Your task to perform on an android device: Open Youtube and go to "Your channel" Image 0: 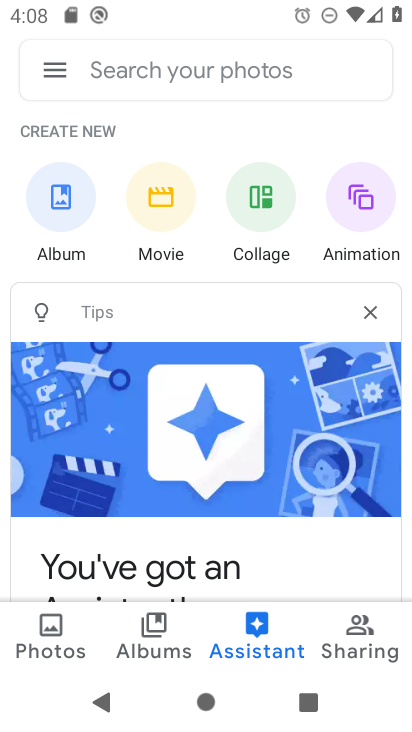
Step 0: press home button
Your task to perform on an android device: Open Youtube and go to "Your channel" Image 1: 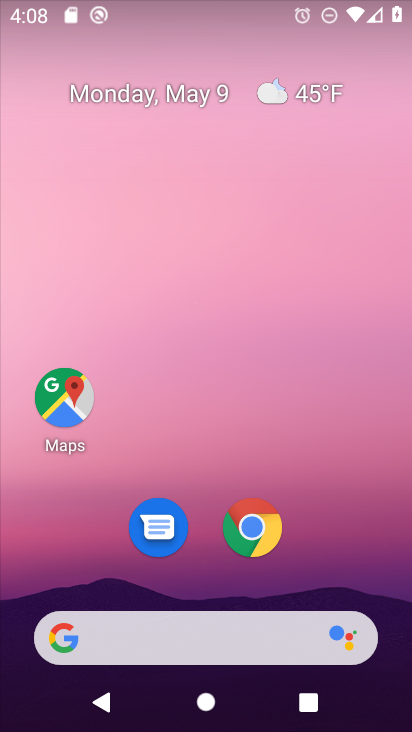
Step 1: drag from (366, 571) to (277, 107)
Your task to perform on an android device: Open Youtube and go to "Your channel" Image 2: 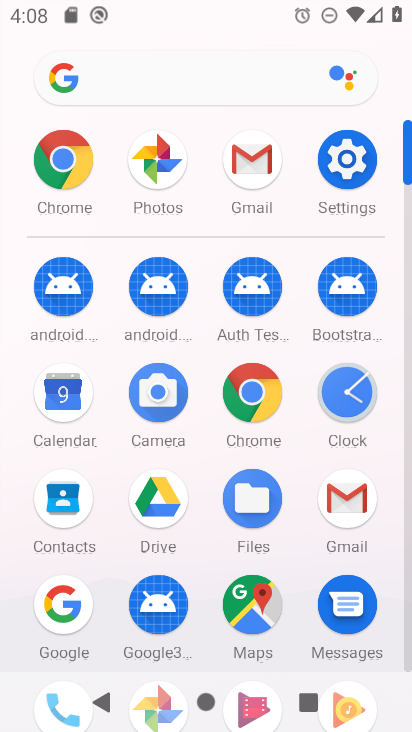
Step 2: click (410, 662)
Your task to perform on an android device: Open Youtube and go to "Your channel" Image 3: 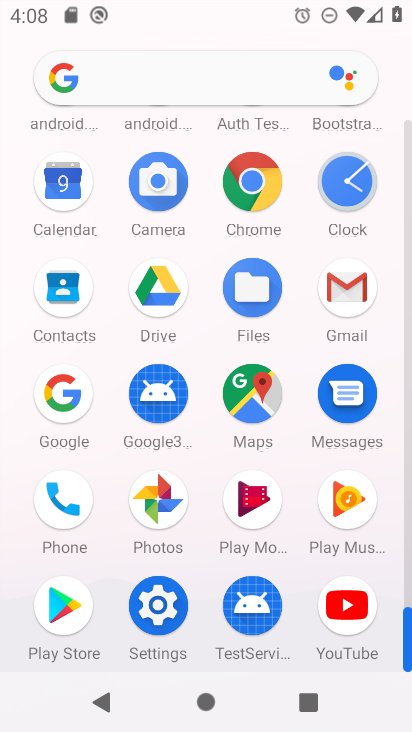
Step 3: click (337, 602)
Your task to perform on an android device: Open Youtube and go to "Your channel" Image 4: 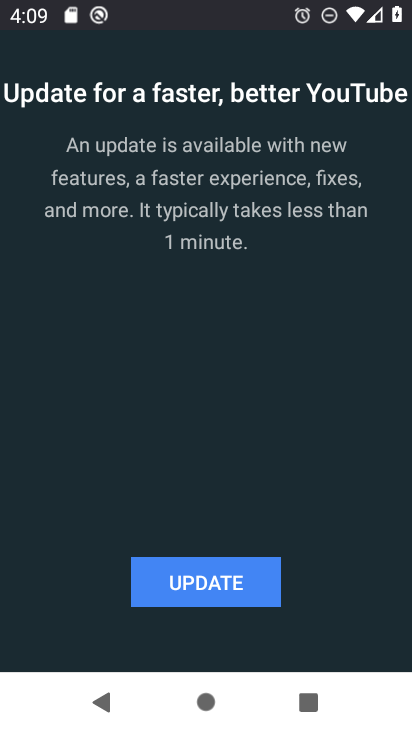
Step 4: click (263, 594)
Your task to perform on an android device: Open Youtube and go to "Your channel" Image 5: 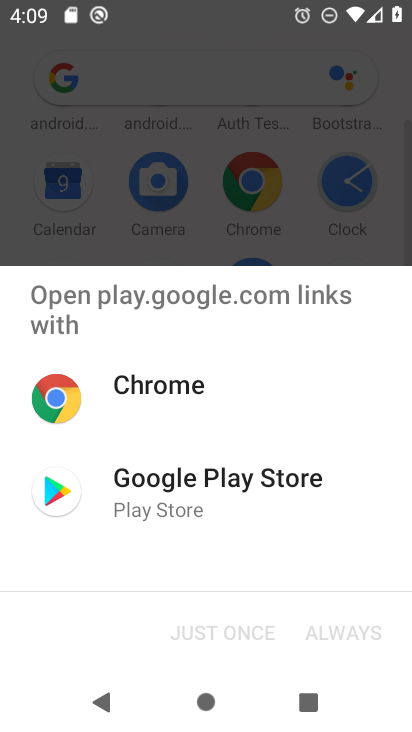
Step 5: click (291, 510)
Your task to perform on an android device: Open Youtube and go to "Your channel" Image 6: 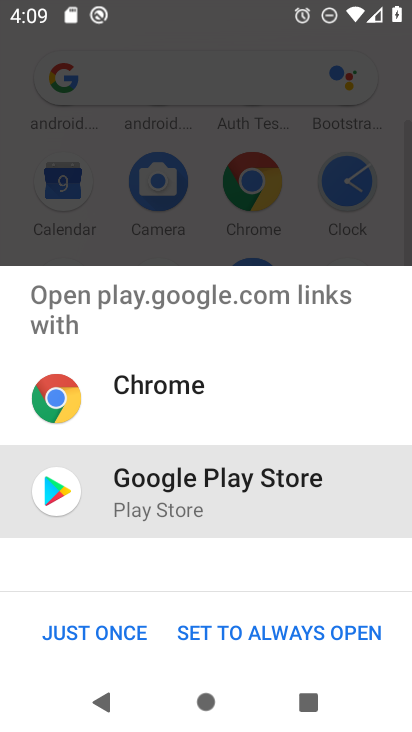
Step 6: click (110, 629)
Your task to perform on an android device: Open Youtube and go to "Your channel" Image 7: 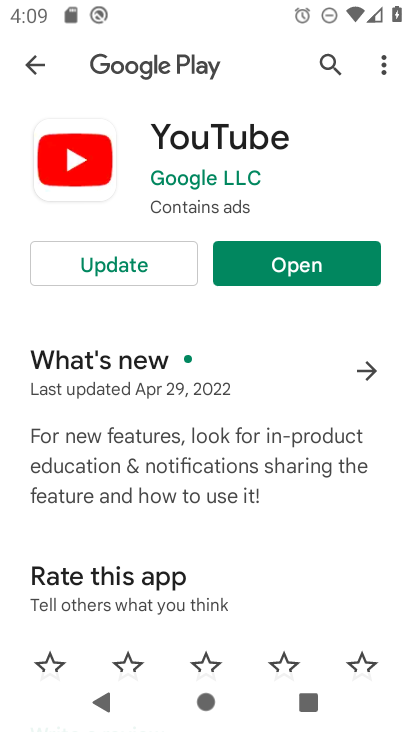
Step 7: click (131, 264)
Your task to perform on an android device: Open Youtube and go to "Your channel" Image 8: 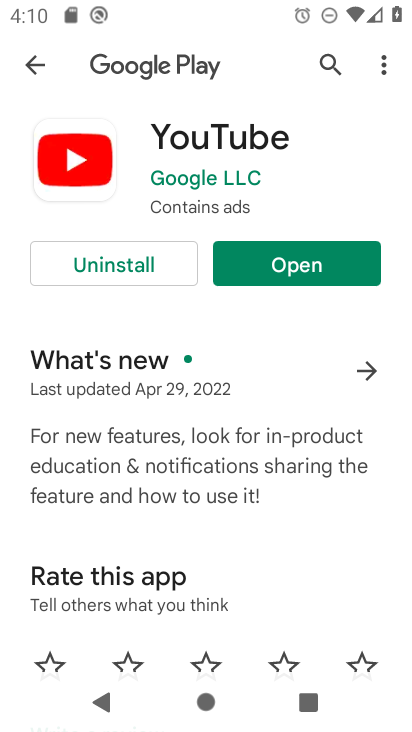
Step 8: click (358, 263)
Your task to perform on an android device: Open Youtube and go to "Your channel" Image 9: 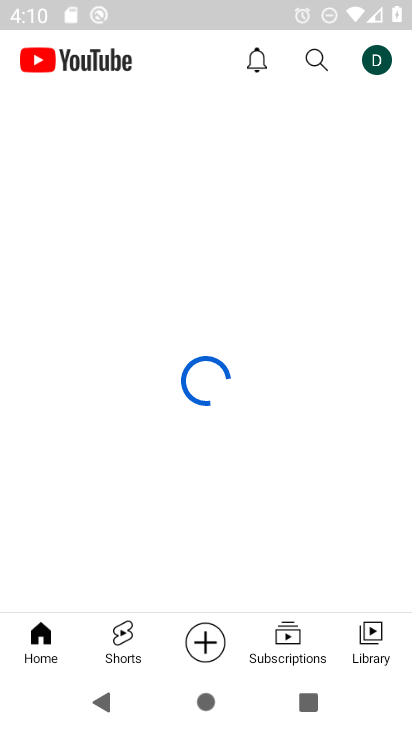
Step 9: click (384, 70)
Your task to perform on an android device: Open Youtube and go to "Your channel" Image 10: 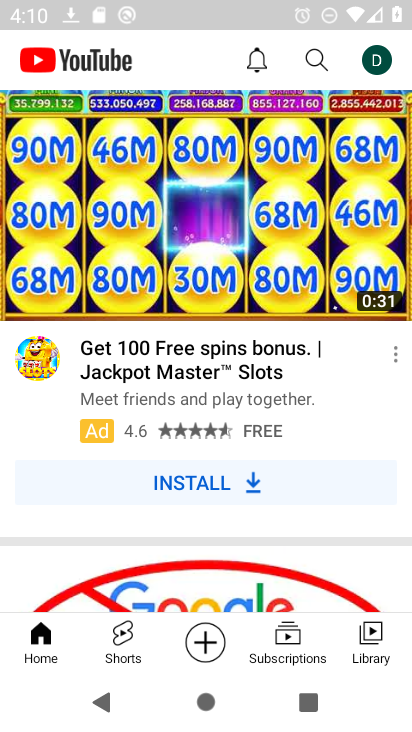
Step 10: click (384, 70)
Your task to perform on an android device: Open Youtube and go to "Your channel" Image 11: 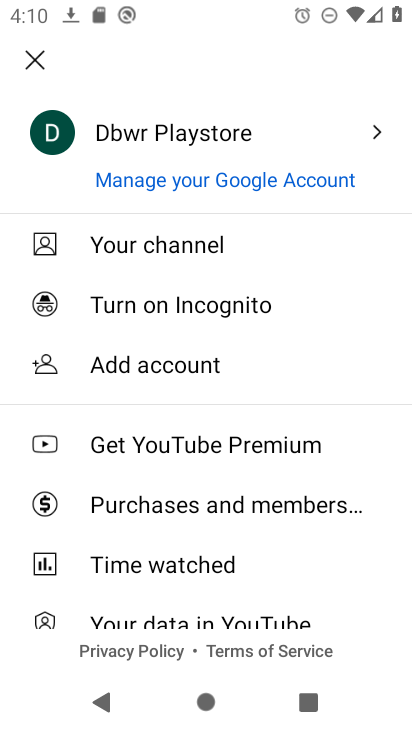
Step 11: click (257, 235)
Your task to perform on an android device: Open Youtube and go to "Your channel" Image 12: 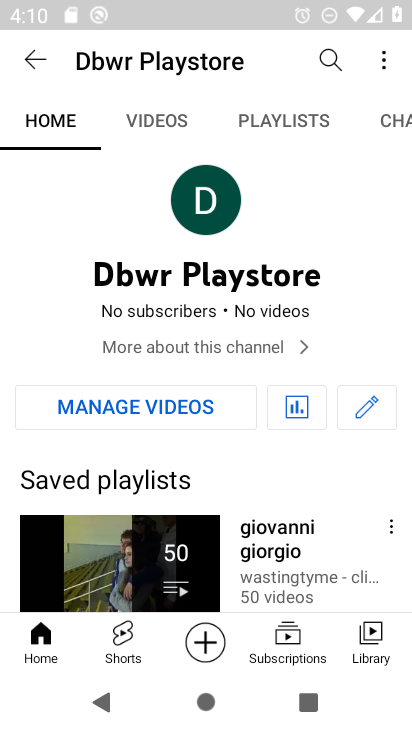
Step 12: task complete